Your task to perform on an android device: Search for sushi restaurants on Maps Image 0: 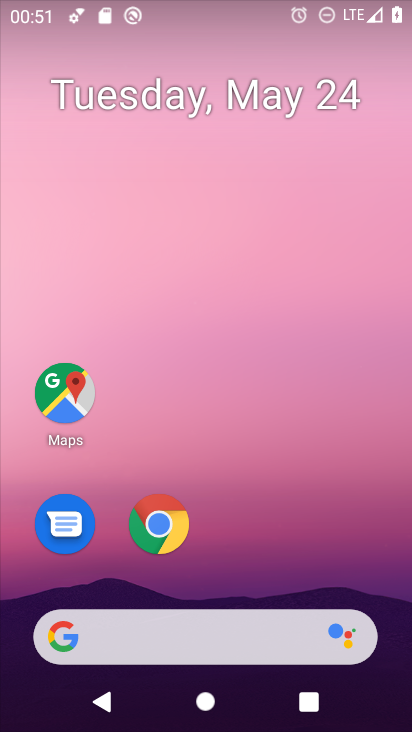
Step 0: click (74, 407)
Your task to perform on an android device: Search for sushi restaurants on Maps Image 1: 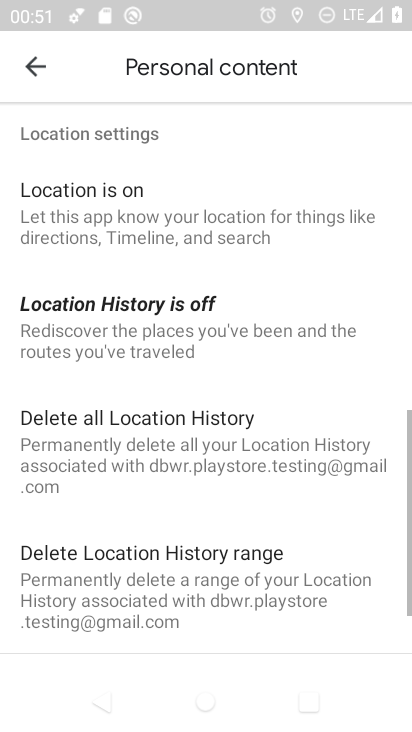
Step 1: click (25, 63)
Your task to perform on an android device: Search for sushi restaurants on Maps Image 2: 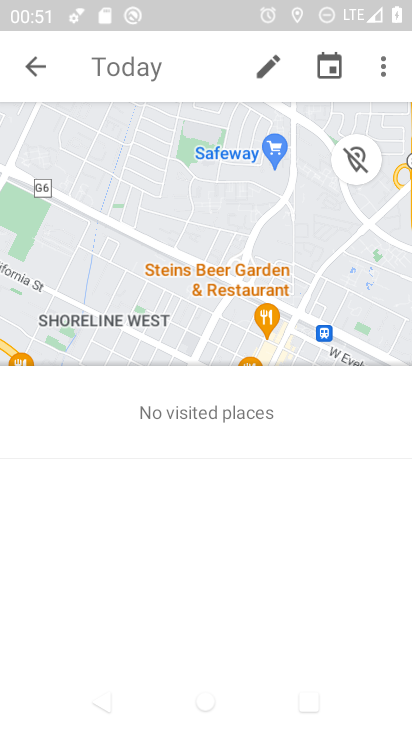
Step 2: click (37, 58)
Your task to perform on an android device: Search for sushi restaurants on Maps Image 3: 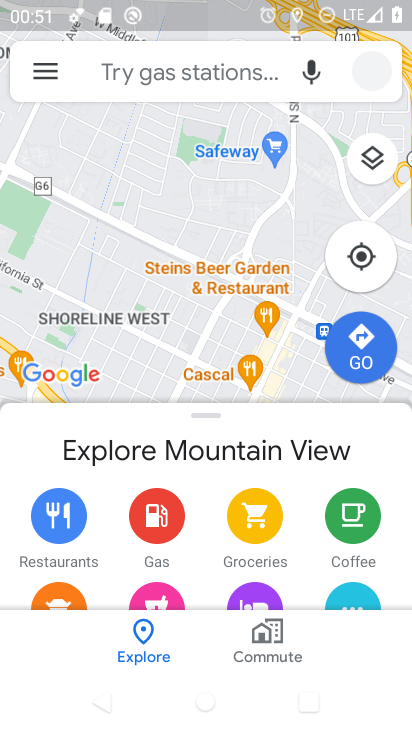
Step 3: click (197, 71)
Your task to perform on an android device: Search for sushi restaurants on Maps Image 4: 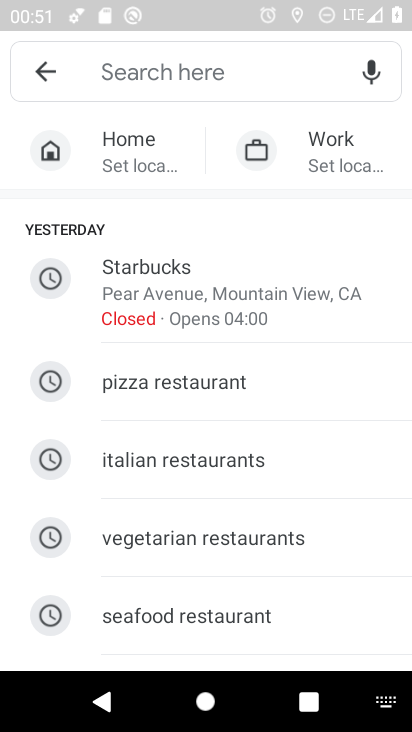
Step 4: type " sushi restaurants"
Your task to perform on an android device: Search for sushi restaurants on Maps Image 5: 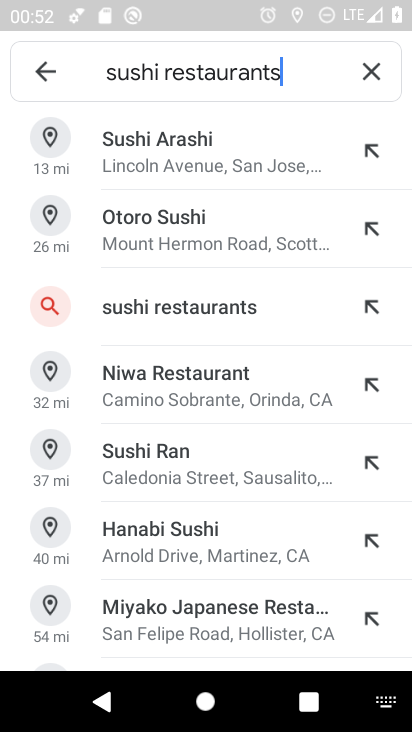
Step 5: click (213, 305)
Your task to perform on an android device: Search for sushi restaurants on Maps Image 6: 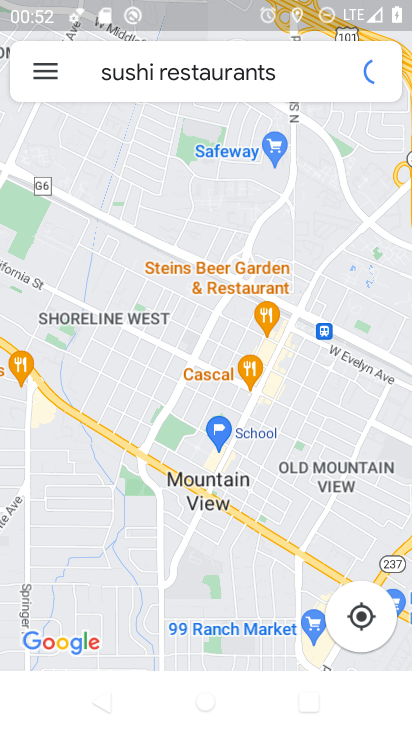
Step 6: task complete